Your task to perform on an android device: change the clock style Image 0: 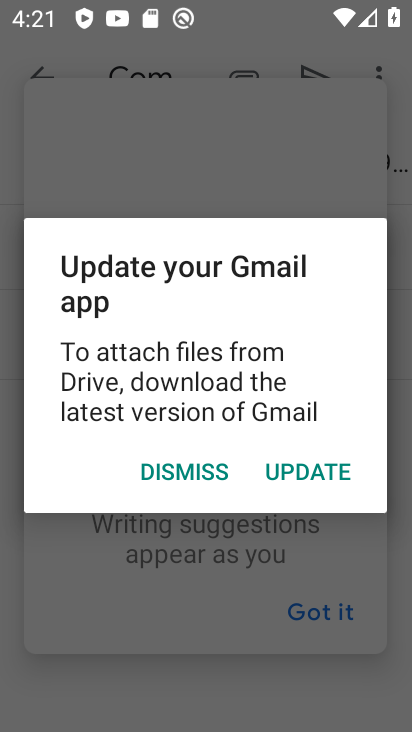
Step 0: press home button
Your task to perform on an android device: change the clock style Image 1: 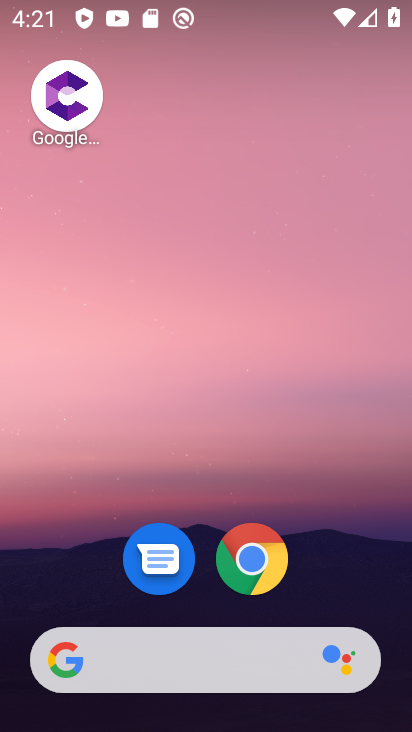
Step 1: drag from (382, 548) to (276, 90)
Your task to perform on an android device: change the clock style Image 2: 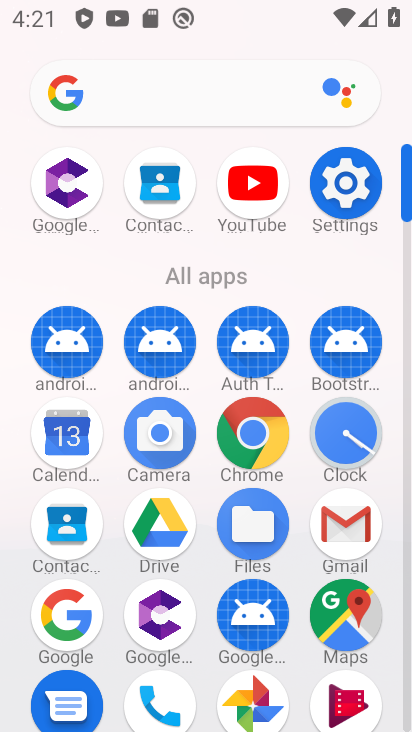
Step 2: click (339, 442)
Your task to perform on an android device: change the clock style Image 3: 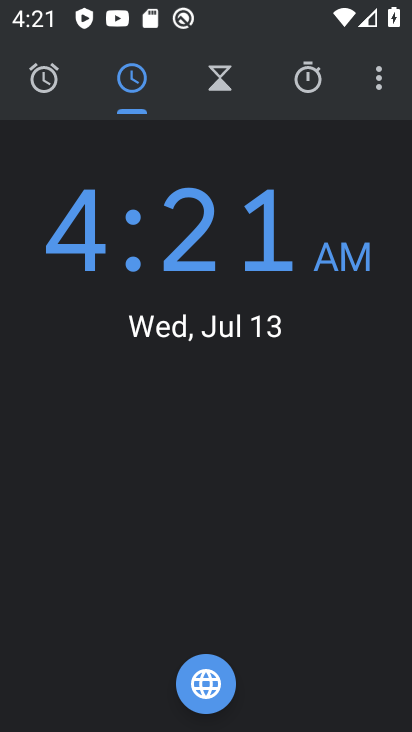
Step 3: click (378, 88)
Your task to perform on an android device: change the clock style Image 4: 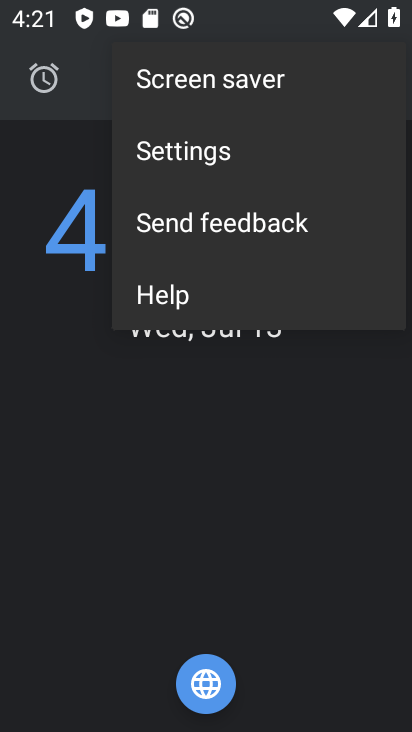
Step 4: click (306, 145)
Your task to perform on an android device: change the clock style Image 5: 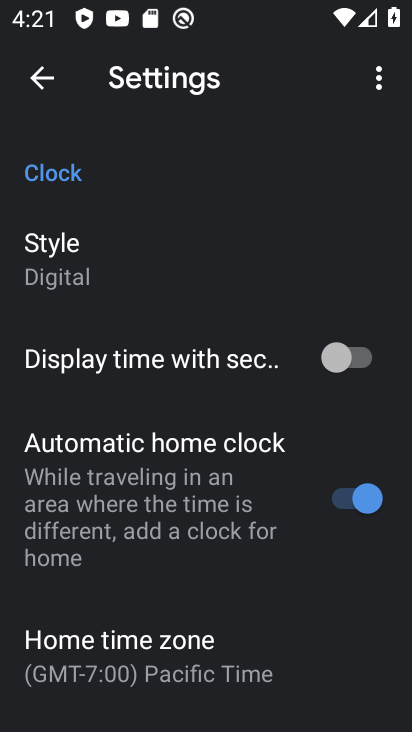
Step 5: click (230, 251)
Your task to perform on an android device: change the clock style Image 6: 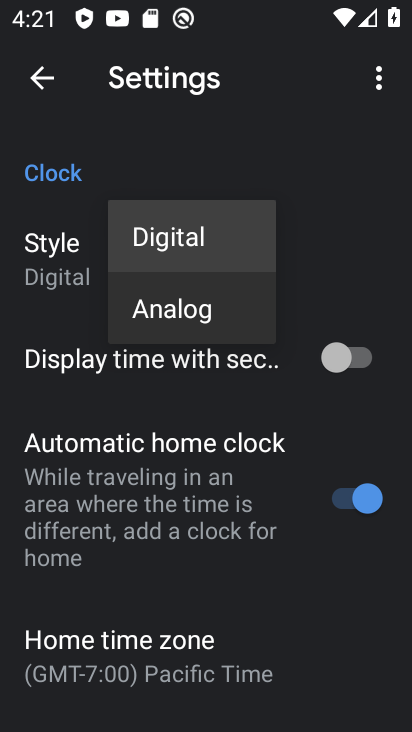
Step 6: click (231, 311)
Your task to perform on an android device: change the clock style Image 7: 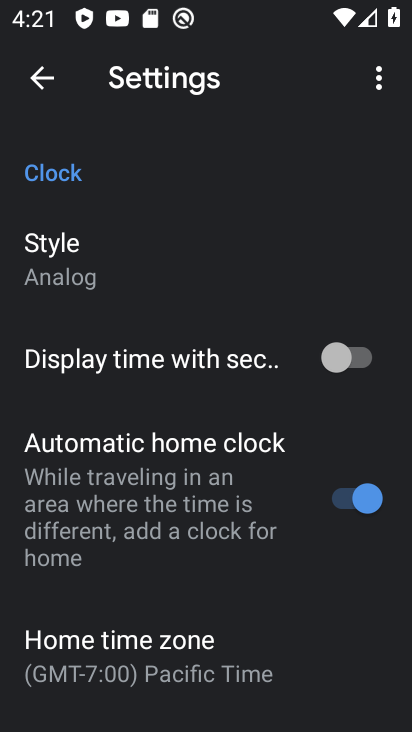
Step 7: task complete